Your task to perform on an android device: Go to CNN.com Image 0: 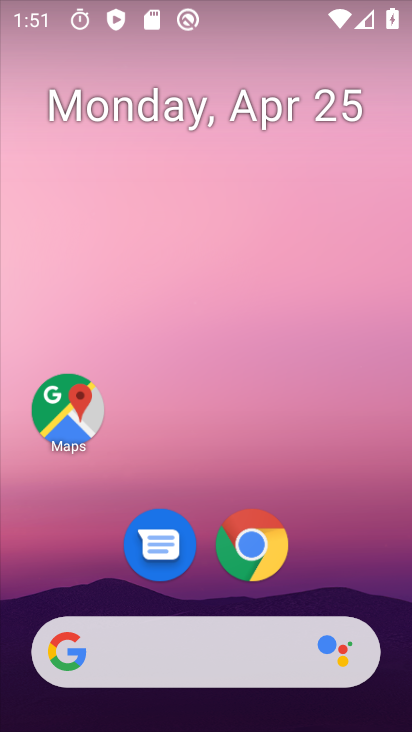
Step 0: click (253, 544)
Your task to perform on an android device: Go to CNN.com Image 1: 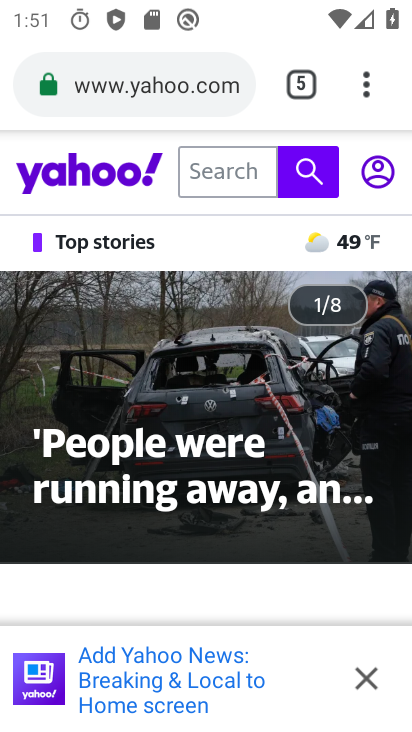
Step 1: click (307, 84)
Your task to perform on an android device: Go to CNN.com Image 2: 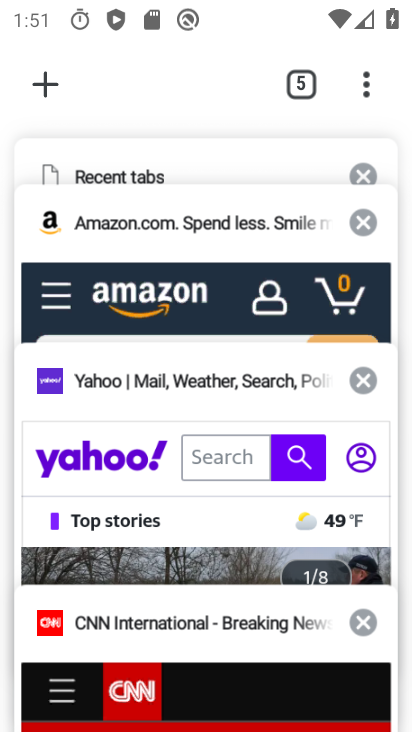
Step 2: click (227, 644)
Your task to perform on an android device: Go to CNN.com Image 3: 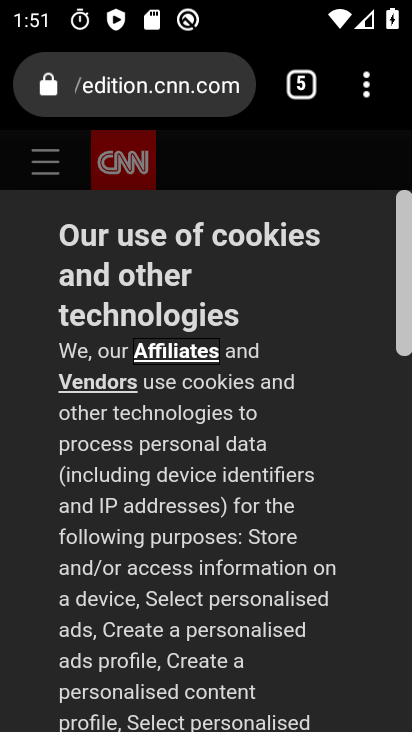
Step 3: task complete